Your task to perform on an android device: Open Maps and search for coffee Image 0: 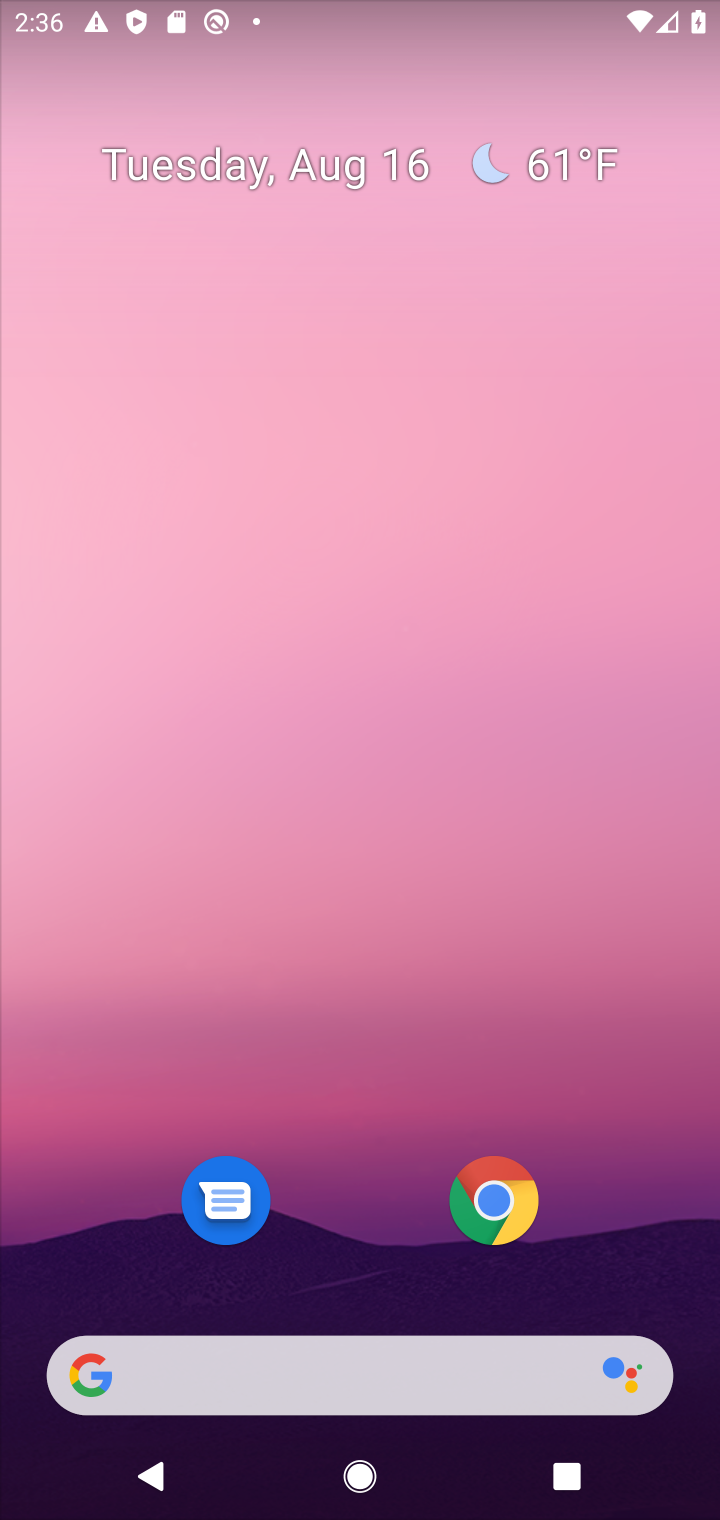
Step 0: drag from (163, 998) to (361, 269)
Your task to perform on an android device: Open Maps and search for coffee Image 1: 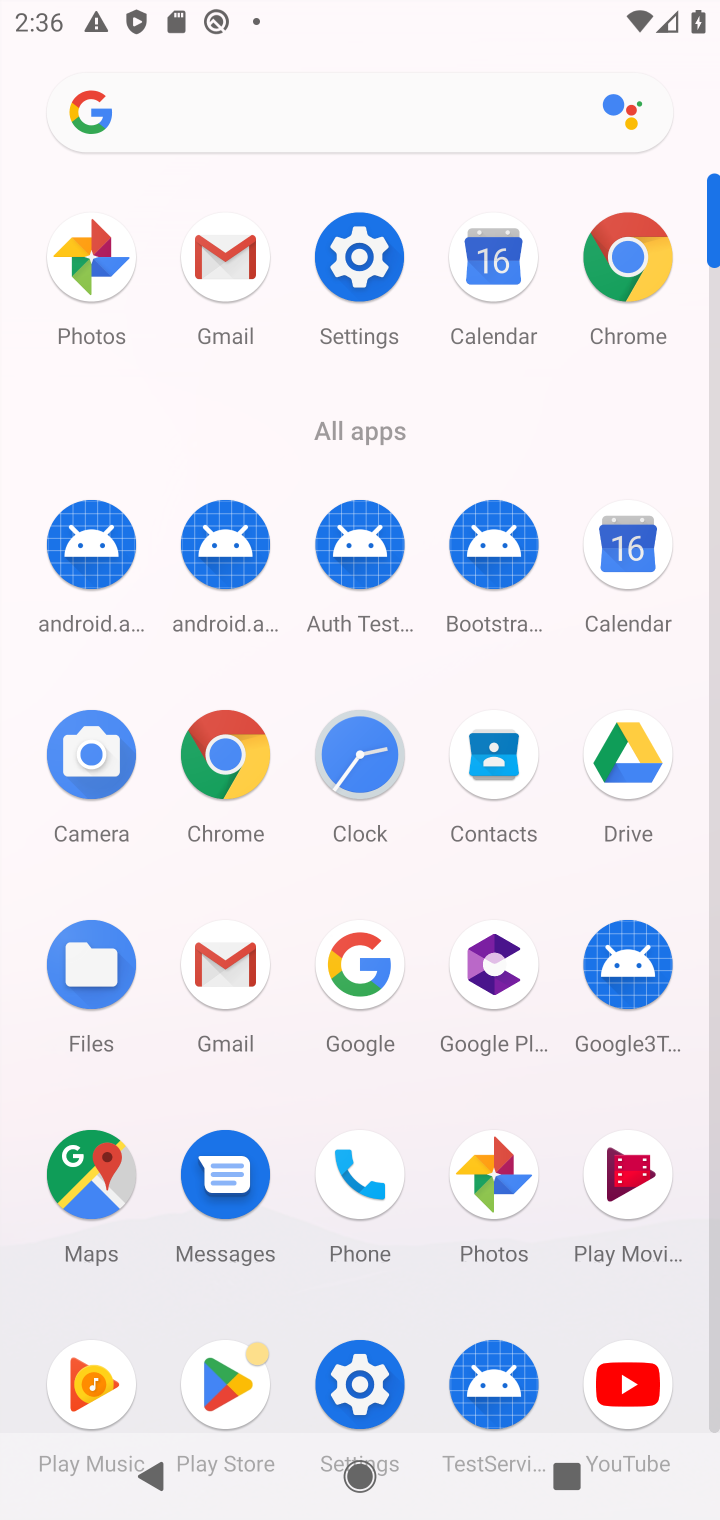
Step 1: click (108, 1173)
Your task to perform on an android device: Open Maps and search for coffee Image 2: 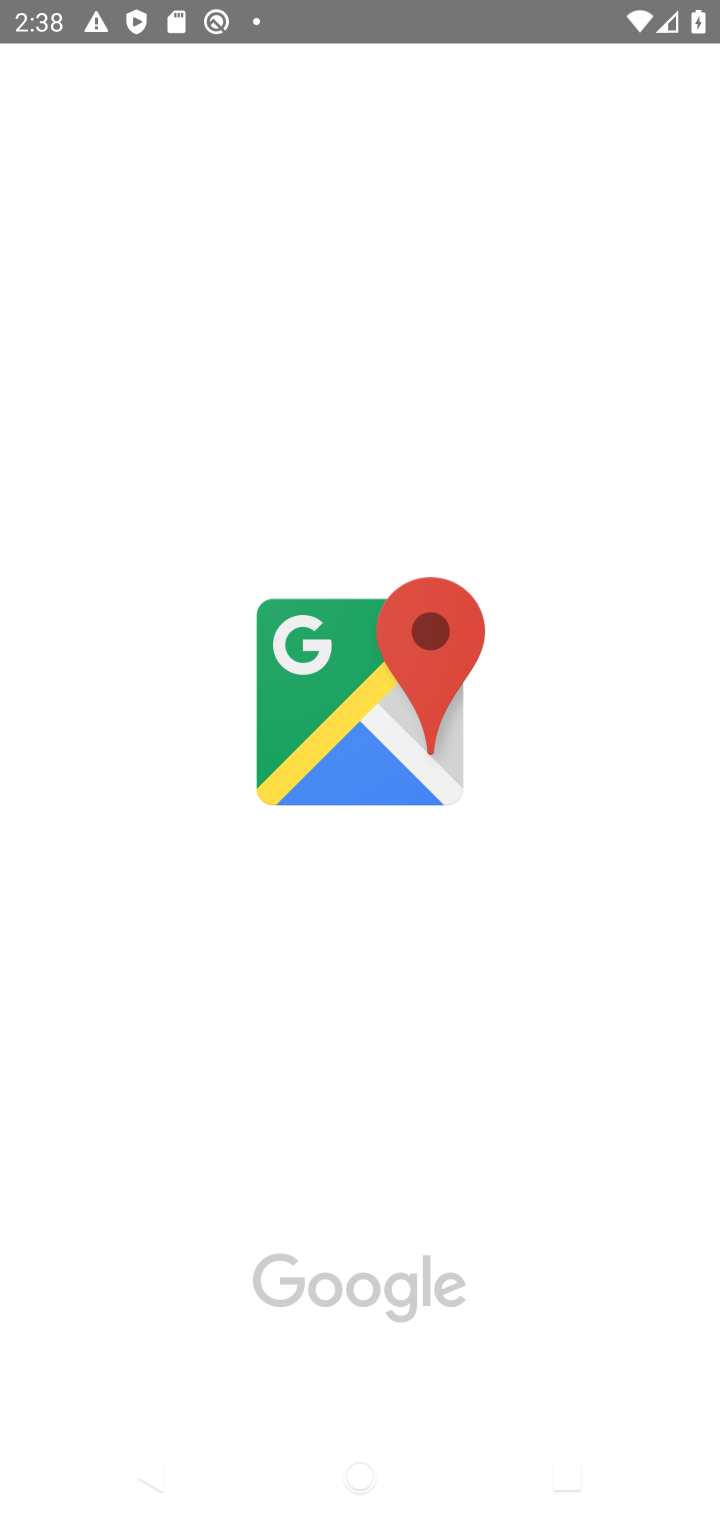
Step 2: task complete